Your task to perform on an android device: change notifications settings Image 0: 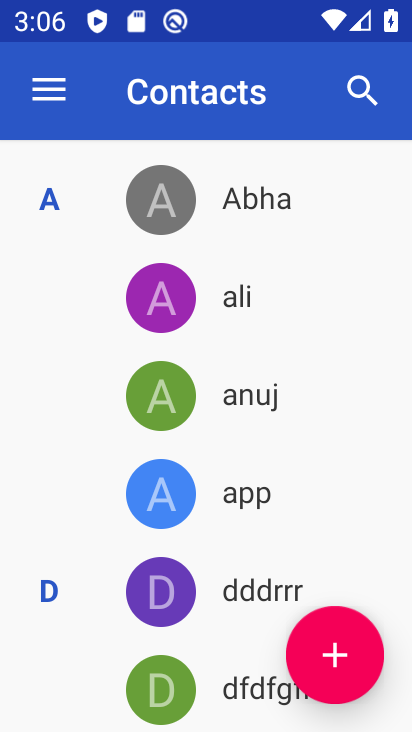
Step 0: press home button
Your task to perform on an android device: change notifications settings Image 1: 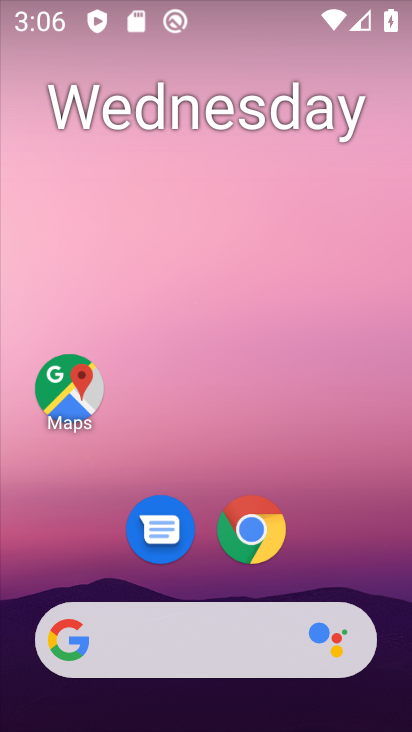
Step 1: drag from (138, 478) to (105, 167)
Your task to perform on an android device: change notifications settings Image 2: 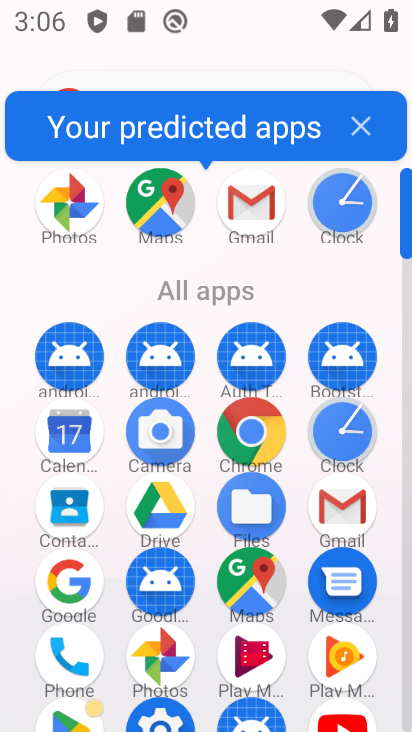
Step 2: drag from (262, 580) to (278, 111)
Your task to perform on an android device: change notifications settings Image 3: 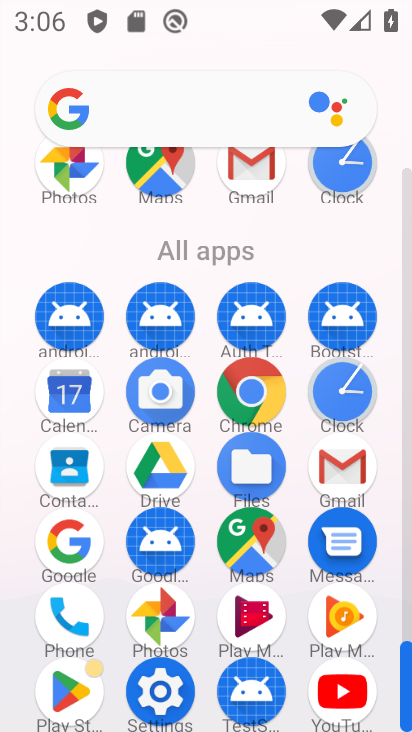
Step 3: click (154, 690)
Your task to perform on an android device: change notifications settings Image 4: 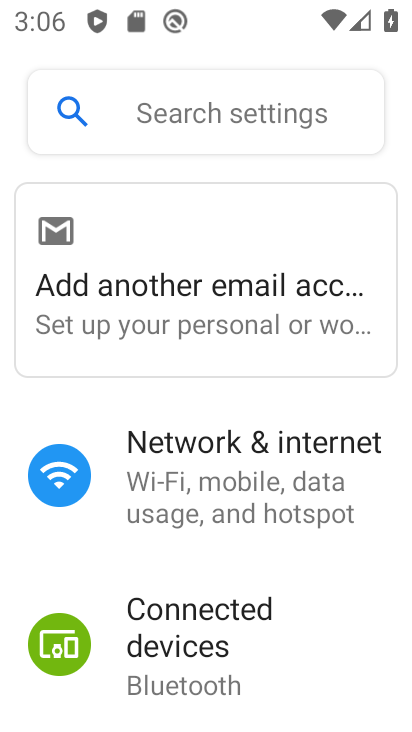
Step 4: drag from (203, 527) to (147, 111)
Your task to perform on an android device: change notifications settings Image 5: 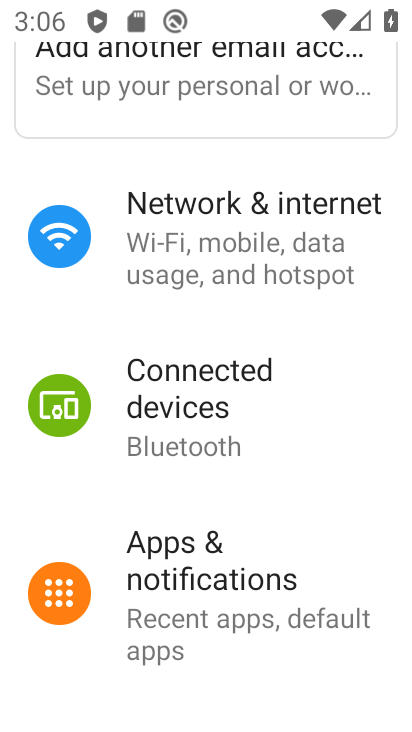
Step 5: drag from (196, 624) to (125, 51)
Your task to perform on an android device: change notifications settings Image 6: 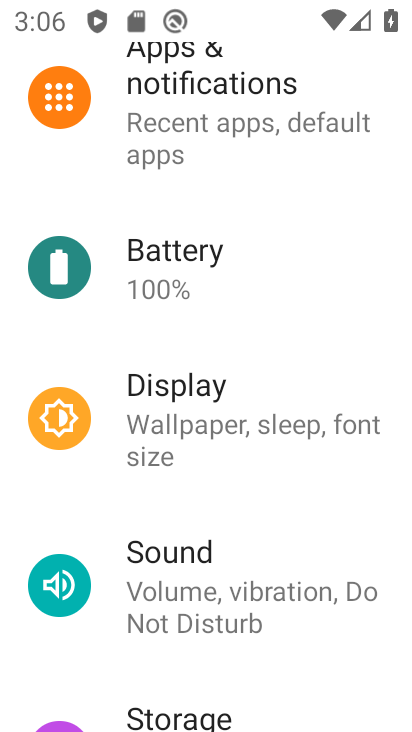
Step 6: click (199, 551)
Your task to perform on an android device: change notifications settings Image 7: 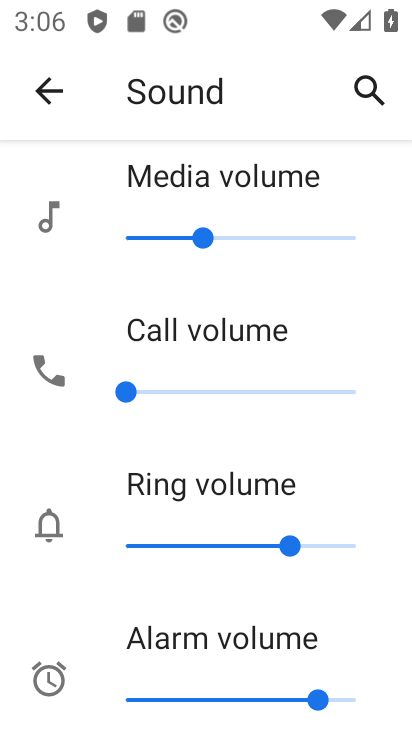
Step 7: drag from (219, 575) to (213, 9)
Your task to perform on an android device: change notifications settings Image 8: 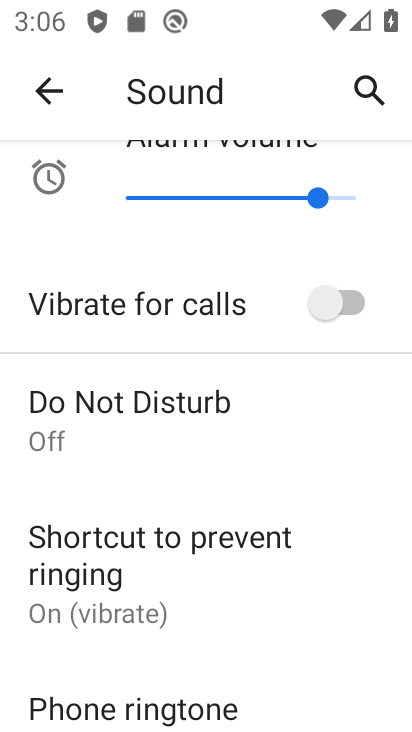
Step 8: drag from (244, 534) to (220, 191)
Your task to perform on an android device: change notifications settings Image 9: 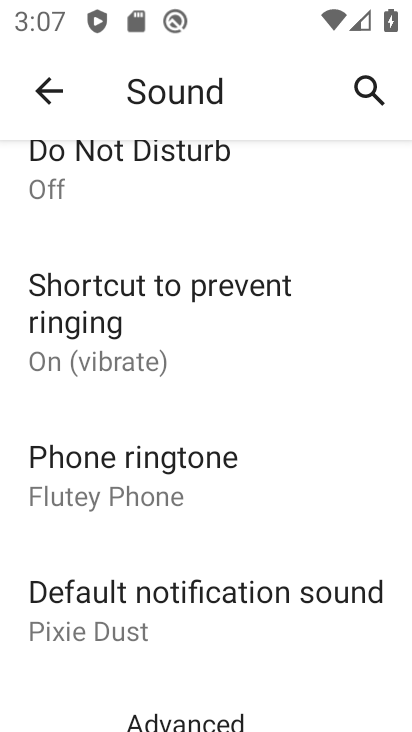
Step 9: click (188, 604)
Your task to perform on an android device: change notifications settings Image 10: 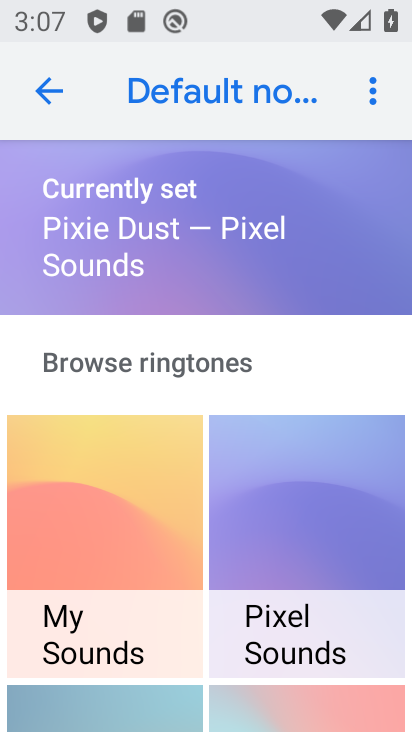
Step 10: drag from (302, 597) to (330, 73)
Your task to perform on an android device: change notifications settings Image 11: 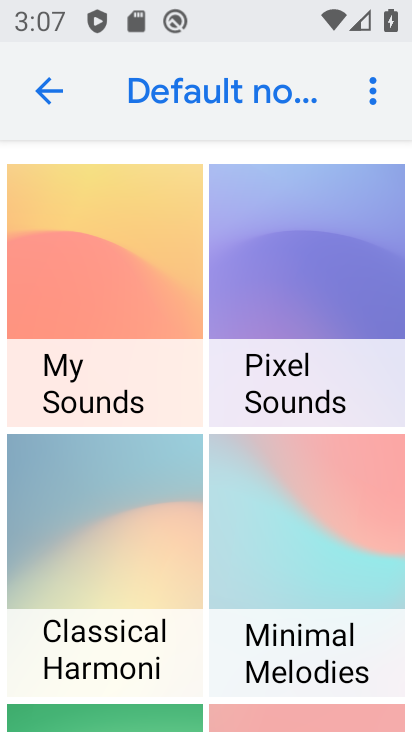
Step 11: click (309, 575)
Your task to perform on an android device: change notifications settings Image 12: 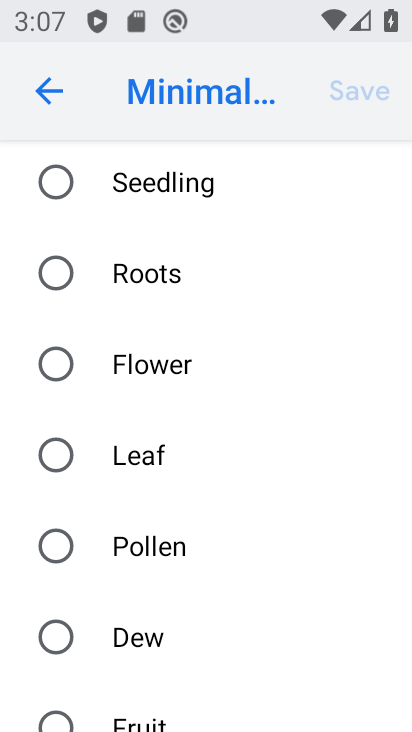
Step 12: click (64, 464)
Your task to perform on an android device: change notifications settings Image 13: 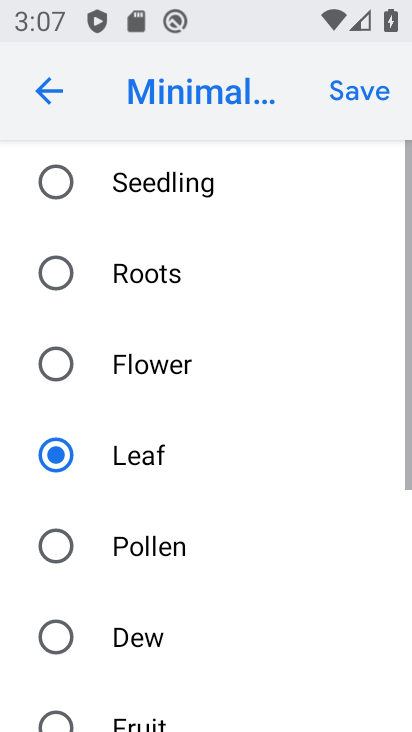
Step 13: click (361, 90)
Your task to perform on an android device: change notifications settings Image 14: 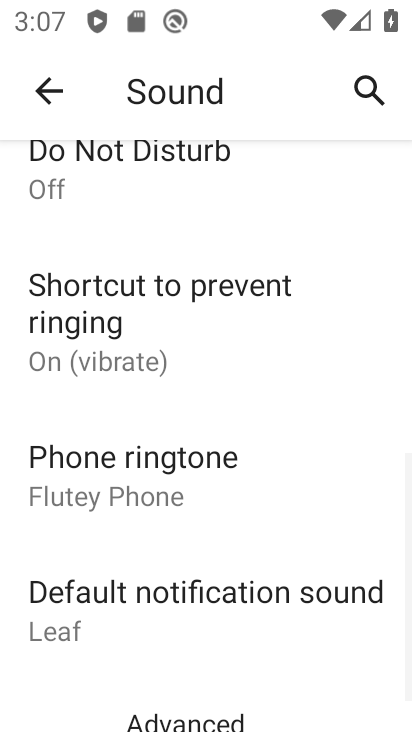
Step 14: task complete